Your task to perform on an android device: Check the news Image 0: 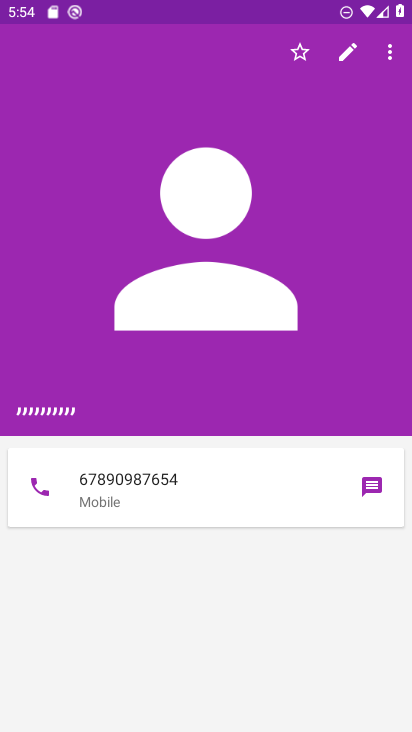
Step 0: press home button
Your task to perform on an android device: Check the news Image 1: 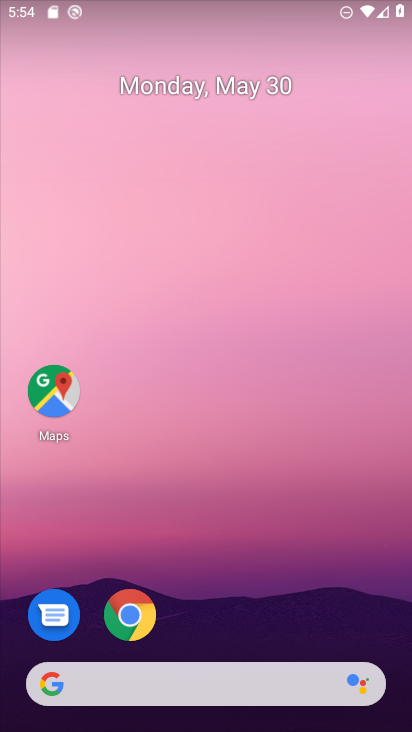
Step 1: click (154, 687)
Your task to perform on an android device: Check the news Image 2: 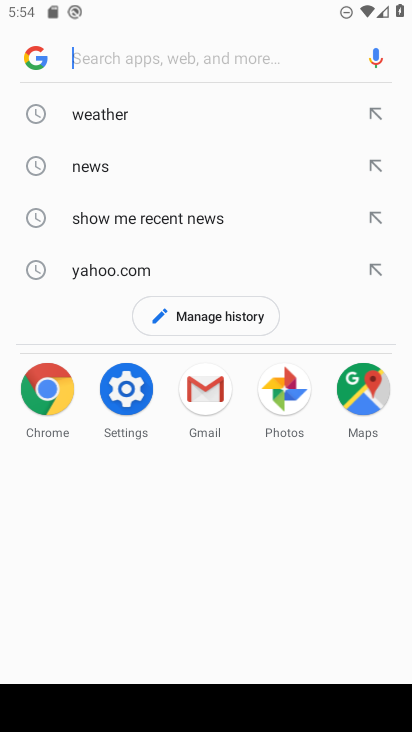
Step 2: click (128, 176)
Your task to perform on an android device: Check the news Image 3: 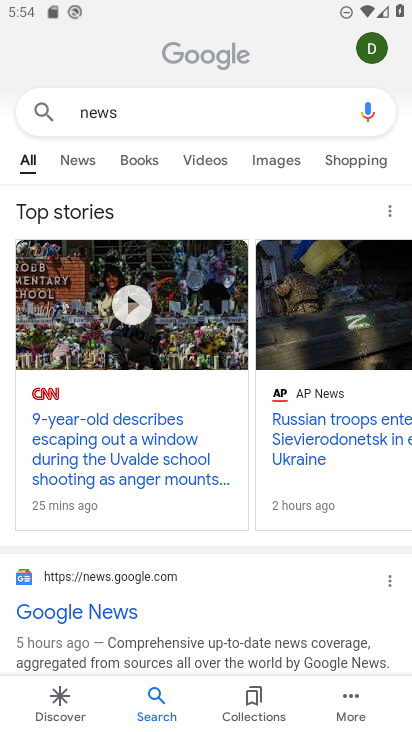
Step 3: task complete